Your task to perform on an android device: Open Chrome and go to settings Image 0: 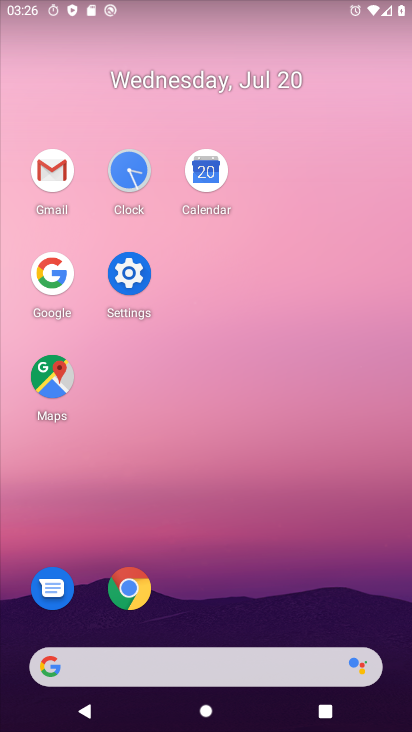
Step 0: click (139, 590)
Your task to perform on an android device: Open Chrome and go to settings Image 1: 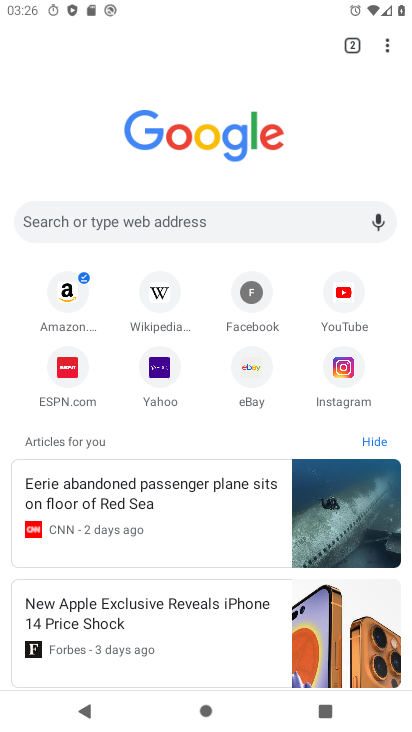
Step 1: click (386, 45)
Your task to perform on an android device: Open Chrome and go to settings Image 2: 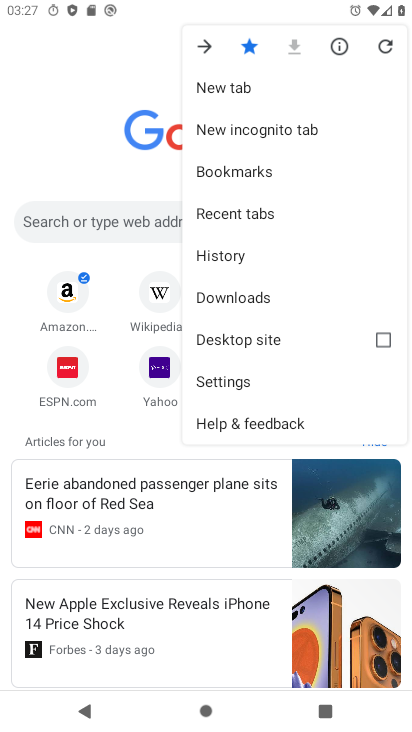
Step 2: click (189, 377)
Your task to perform on an android device: Open Chrome and go to settings Image 3: 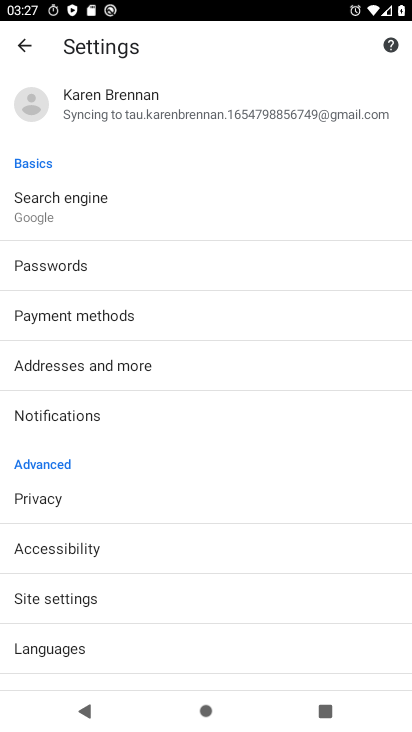
Step 3: task complete